Your task to perform on an android device: set the stopwatch Image 0: 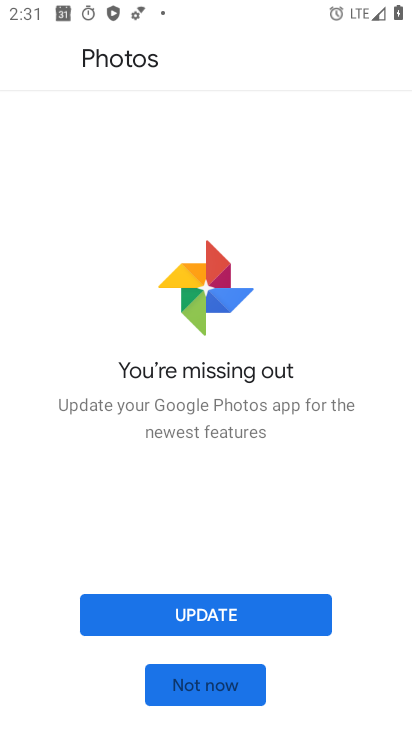
Step 0: click (229, 696)
Your task to perform on an android device: set the stopwatch Image 1: 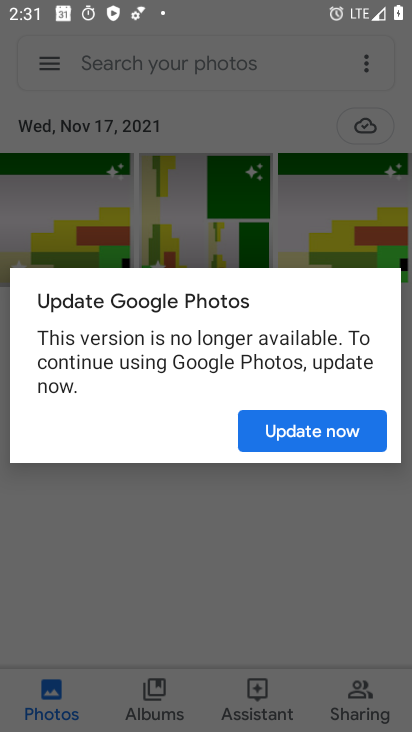
Step 1: press home button
Your task to perform on an android device: set the stopwatch Image 2: 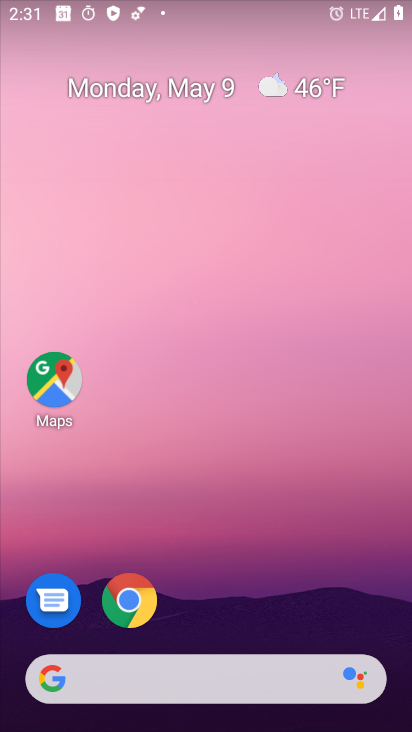
Step 2: drag from (211, 675) to (241, 195)
Your task to perform on an android device: set the stopwatch Image 3: 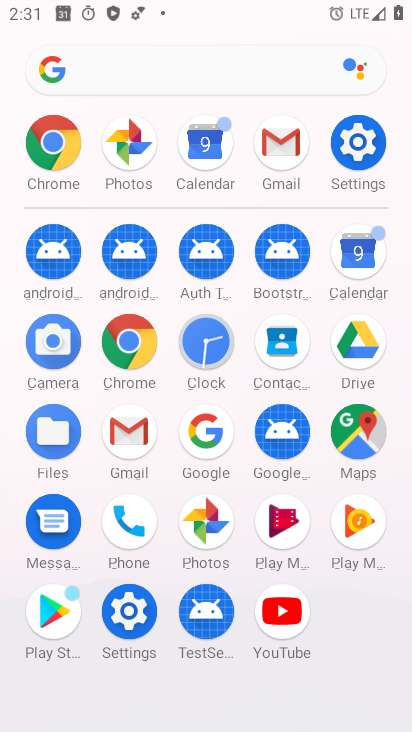
Step 3: click (192, 352)
Your task to perform on an android device: set the stopwatch Image 4: 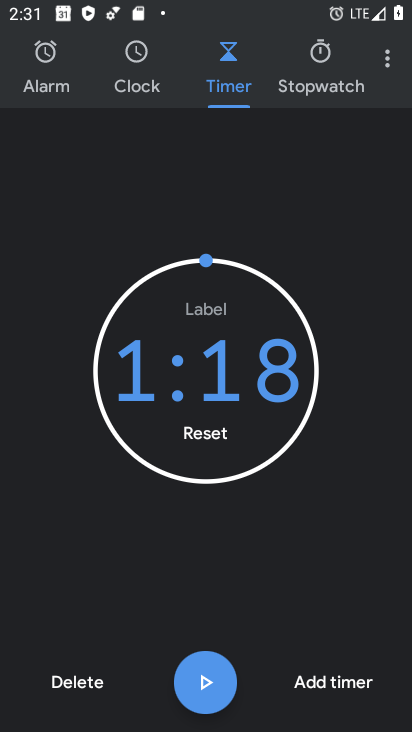
Step 4: click (309, 94)
Your task to perform on an android device: set the stopwatch Image 5: 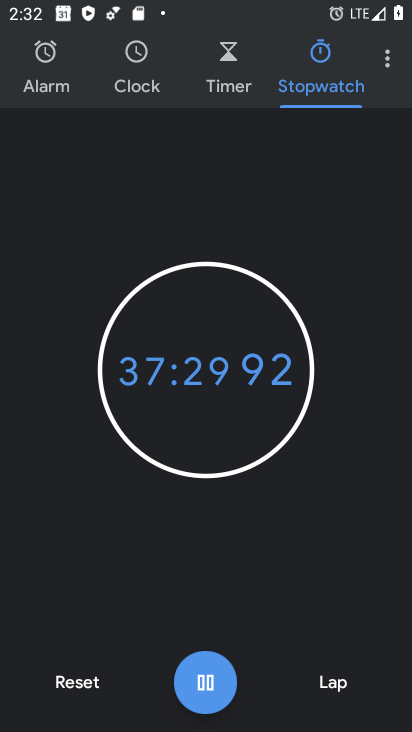
Step 5: task complete